Your task to perform on an android device: turn off notifications settings in the gmail app Image 0: 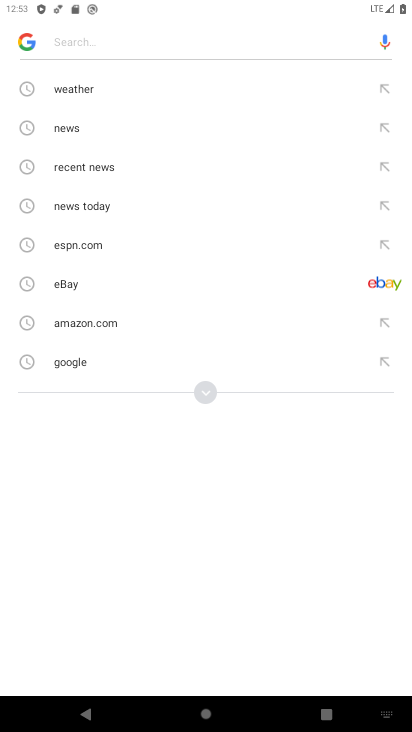
Step 0: press home button
Your task to perform on an android device: turn off notifications settings in the gmail app Image 1: 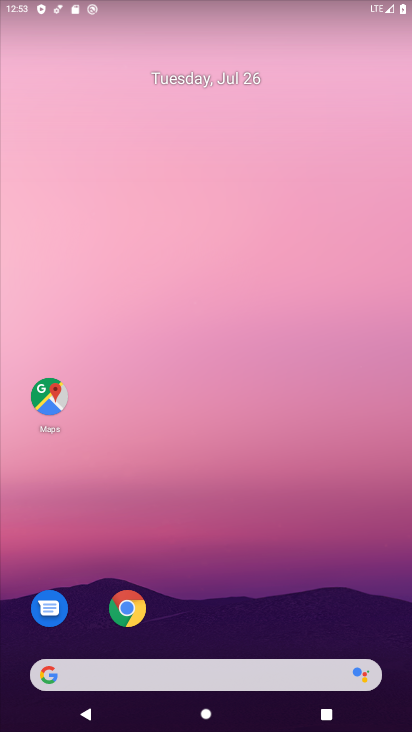
Step 1: drag from (243, 621) to (233, 83)
Your task to perform on an android device: turn off notifications settings in the gmail app Image 2: 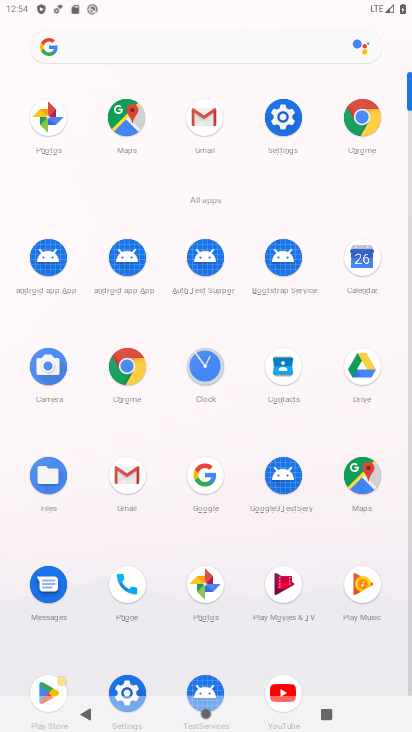
Step 2: click (194, 116)
Your task to perform on an android device: turn off notifications settings in the gmail app Image 3: 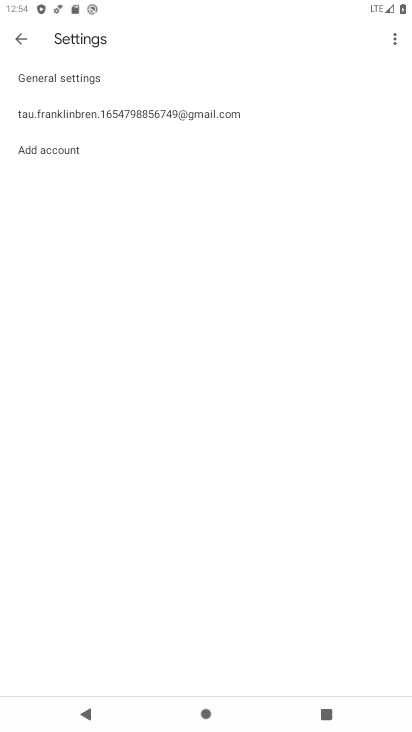
Step 3: click (193, 117)
Your task to perform on an android device: turn off notifications settings in the gmail app Image 4: 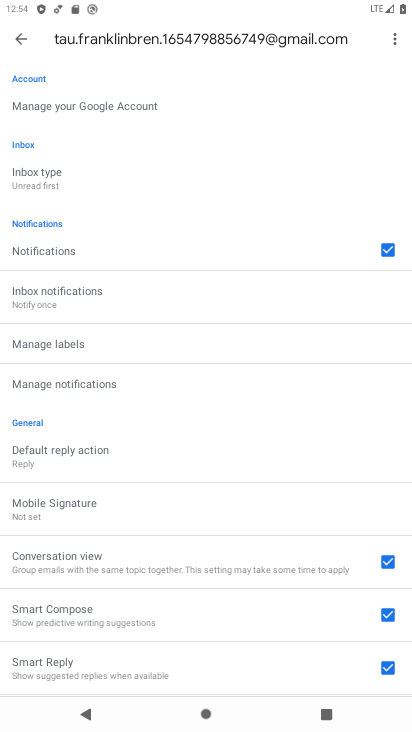
Step 4: click (208, 372)
Your task to perform on an android device: turn off notifications settings in the gmail app Image 5: 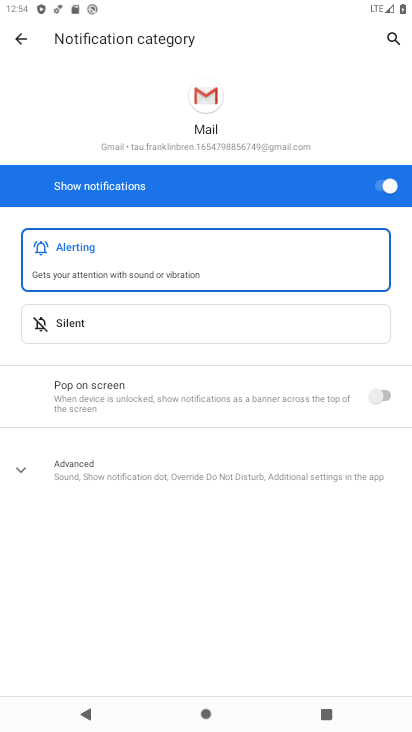
Step 5: task complete